Your task to perform on an android device: Go to display settings Image 0: 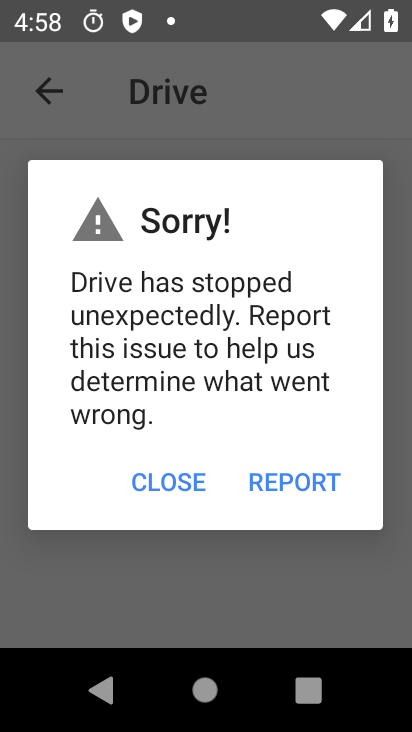
Step 0: click (158, 480)
Your task to perform on an android device: Go to display settings Image 1: 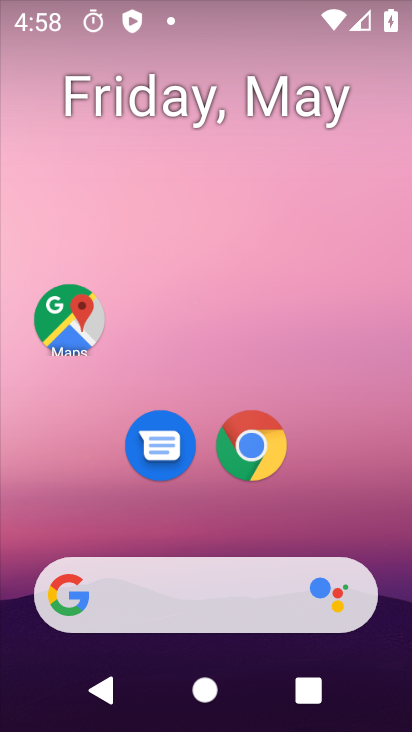
Step 1: drag from (304, 471) to (191, 69)
Your task to perform on an android device: Go to display settings Image 2: 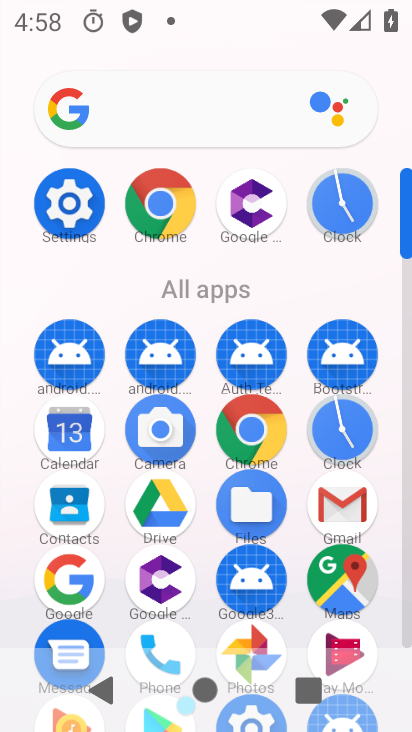
Step 2: click (80, 198)
Your task to perform on an android device: Go to display settings Image 3: 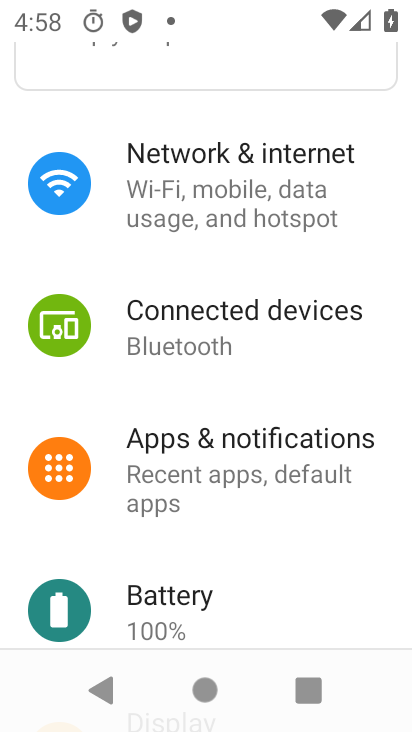
Step 3: drag from (176, 527) to (166, 205)
Your task to perform on an android device: Go to display settings Image 4: 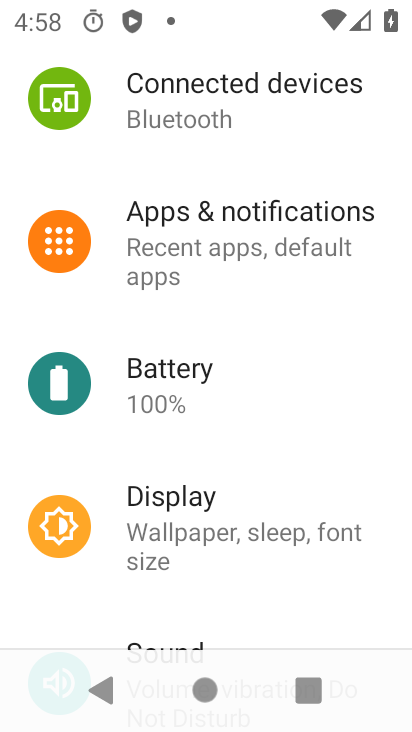
Step 4: drag from (191, 403) to (172, 162)
Your task to perform on an android device: Go to display settings Image 5: 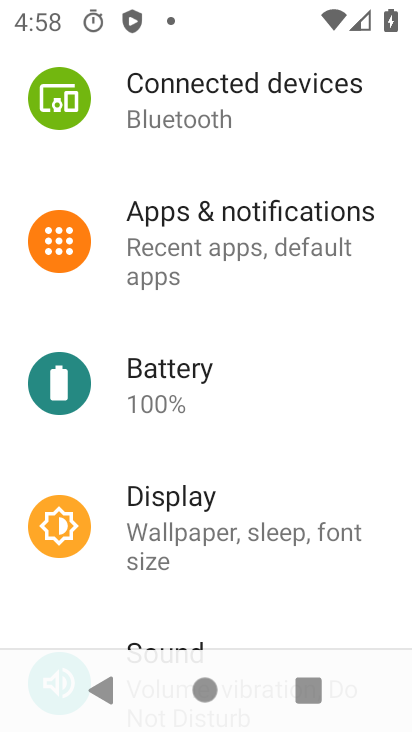
Step 5: drag from (208, 433) to (159, 239)
Your task to perform on an android device: Go to display settings Image 6: 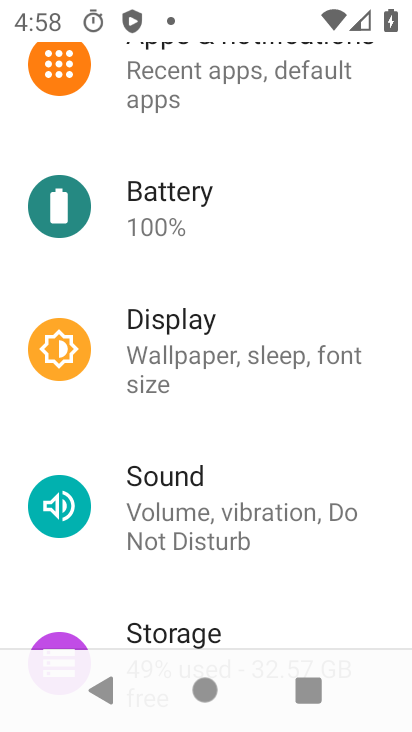
Step 6: click (144, 332)
Your task to perform on an android device: Go to display settings Image 7: 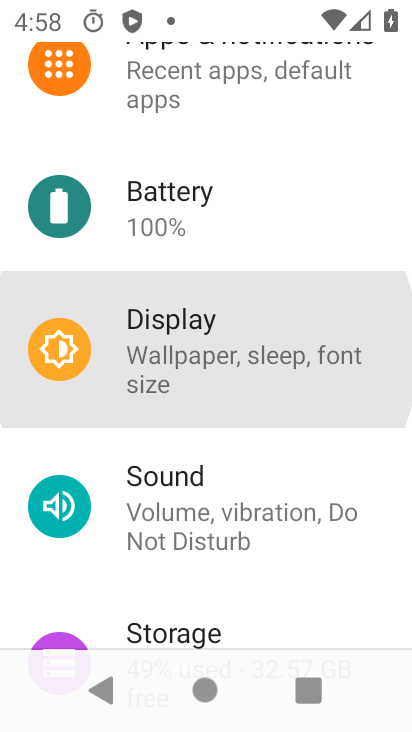
Step 7: click (147, 335)
Your task to perform on an android device: Go to display settings Image 8: 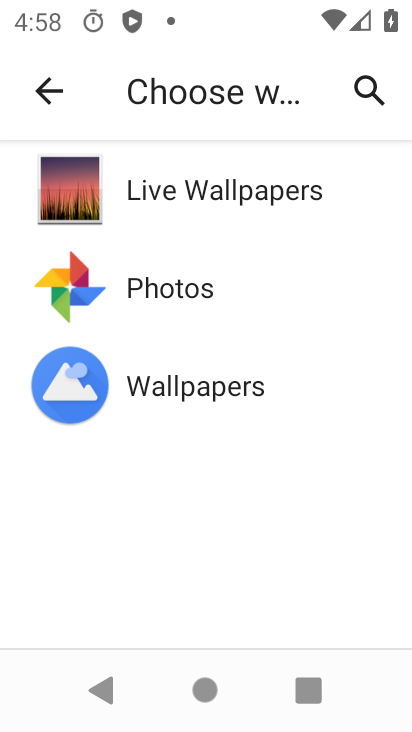
Step 8: click (36, 104)
Your task to perform on an android device: Go to display settings Image 9: 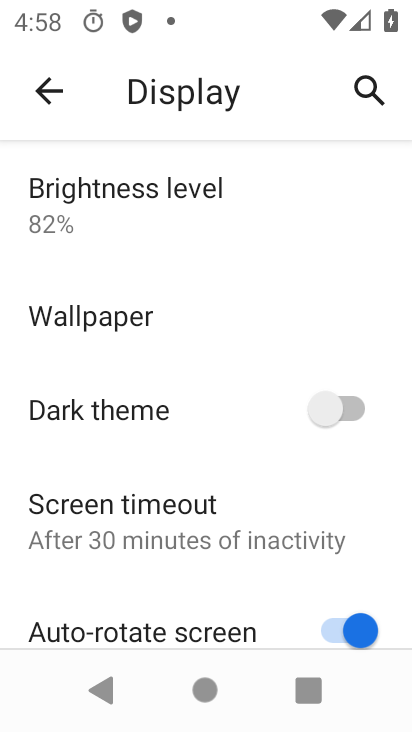
Step 9: task complete